Your task to perform on an android device: turn off notifications settings in the gmail app Image 0: 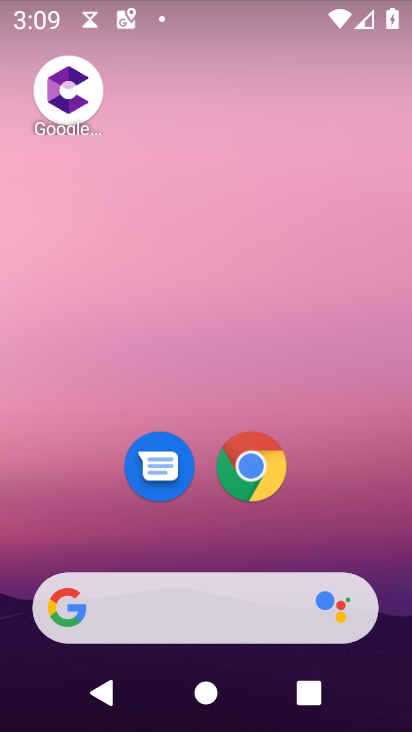
Step 0: drag from (390, 561) to (310, 174)
Your task to perform on an android device: turn off notifications settings in the gmail app Image 1: 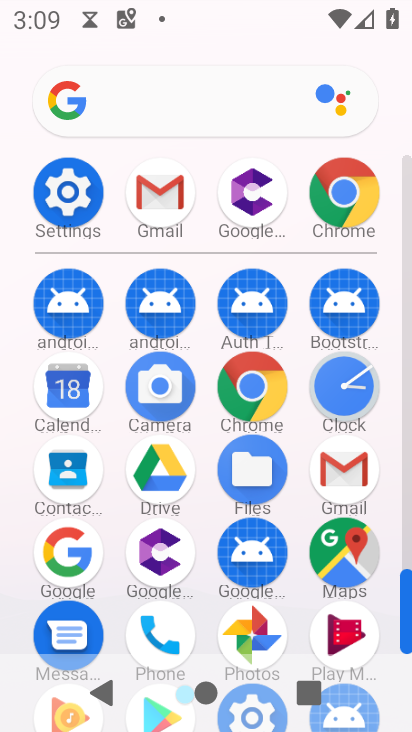
Step 1: click (157, 179)
Your task to perform on an android device: turn off notifications settings in the gmail app Image 2: 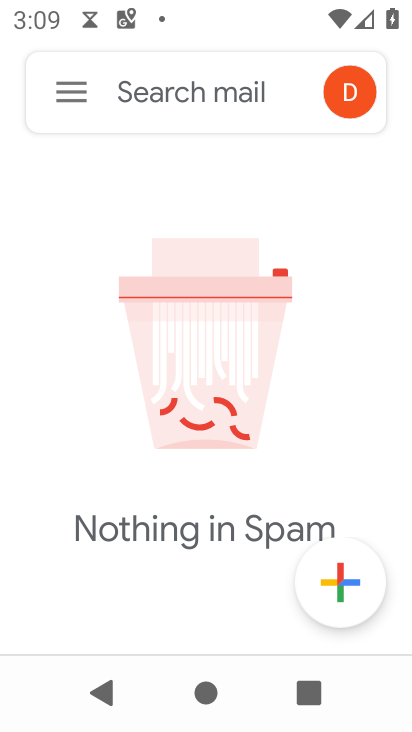
Step 2: click (81, 86)
Your task to perform on an android device: turn off notifications settings in the gmail app Image 3: 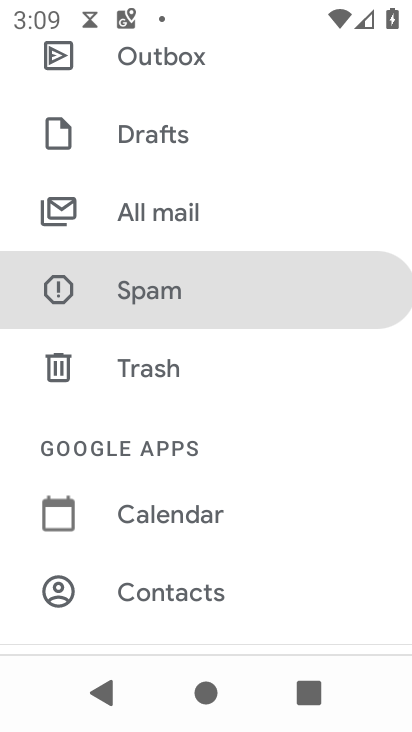
Step 3: drag from (256, 595) to (239, 259)
Your task to perform on an android device: turn off notifications settings in the gmail app Image 4: 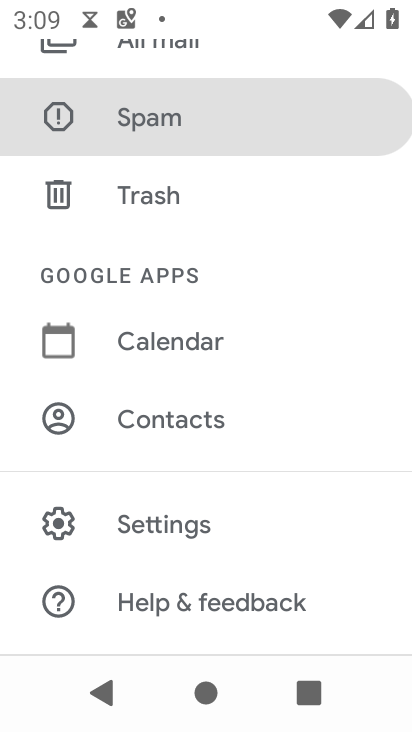
Step 4: click (224, 518)
Your task to perform on an android device: turn off notifications settings in the gmail app Image 5: 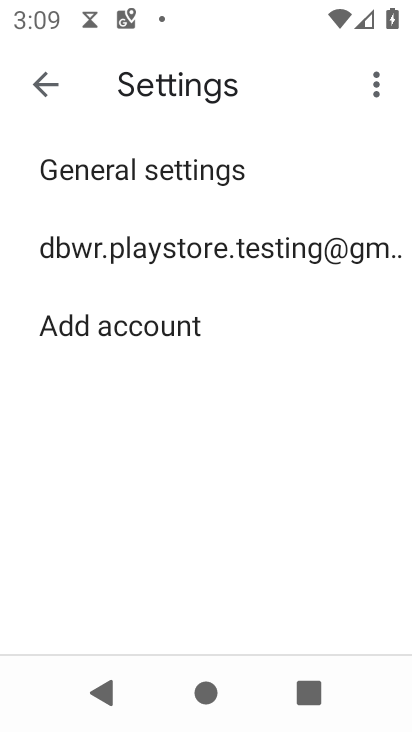
Step 5: click (285, 262)
Your task to perform on an android device: turn off notifications settings in the gmail app Image 6: 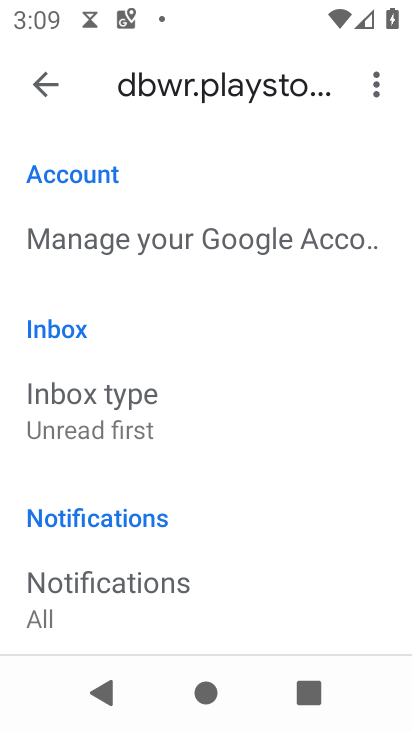
Step 6: drag from (304, 574) to (251, 164)
Your task to perform on an android device: turn off notifications settings in the gmail app Image 7: 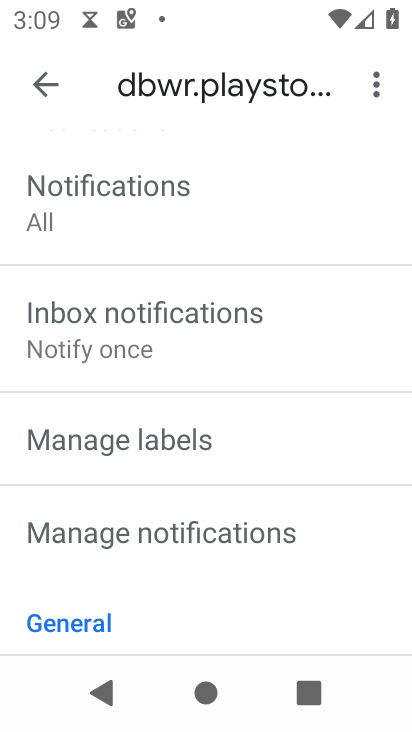
Step 7: click (289, 588)
Your task to perform on an android device: turn off notifications settings in the gmail app Image 8: 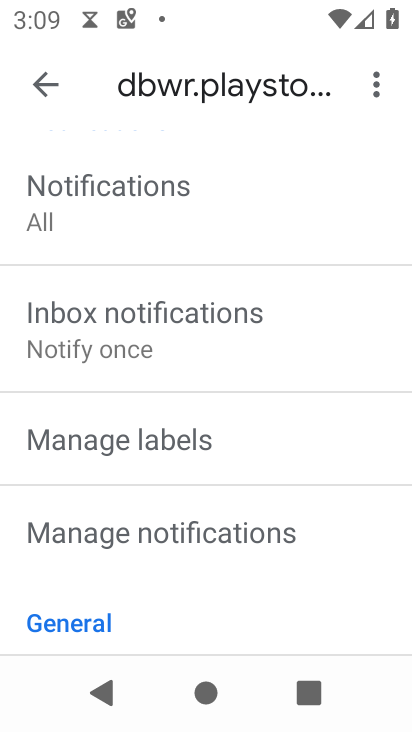
Step 8: click (289, 549)
Your task to perform on an android device: turn off notifications settings in the gmail app Image 9: 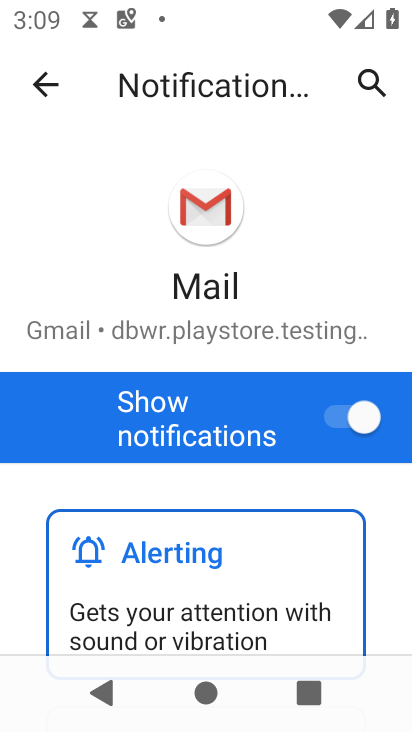
Step 9: task complete